Your task to perform on an android device: change keyboard looks Image 0: 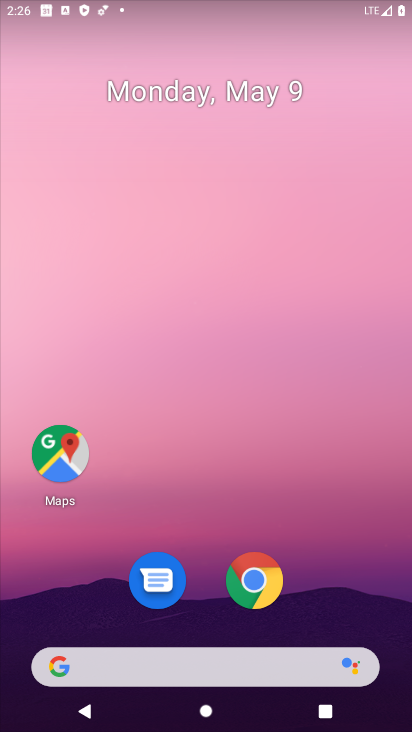
Step 0: click (261, 595)
Your task to perform on an android device: change keyboard looks Image 1: 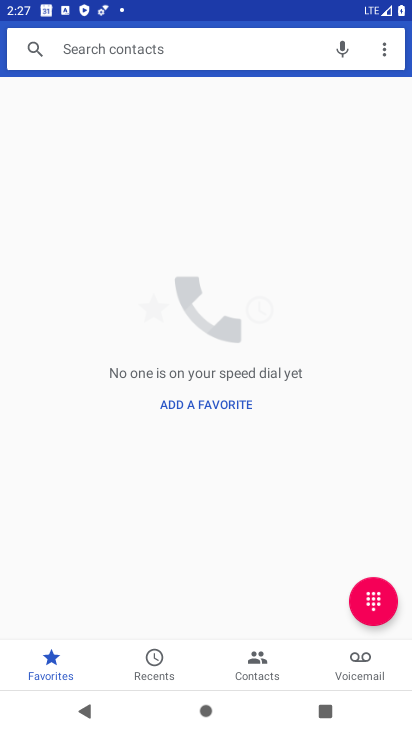
Step 1: press home button
Your task to perform on an android device: change keyboard looks Image 2: 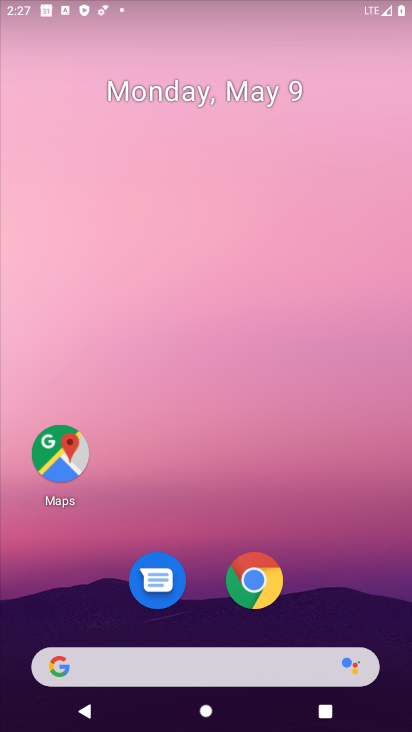
Step 2: drag from (343, 543) to (263, 53)
Your task to perform on an android device: change keyboard looks Image 3: 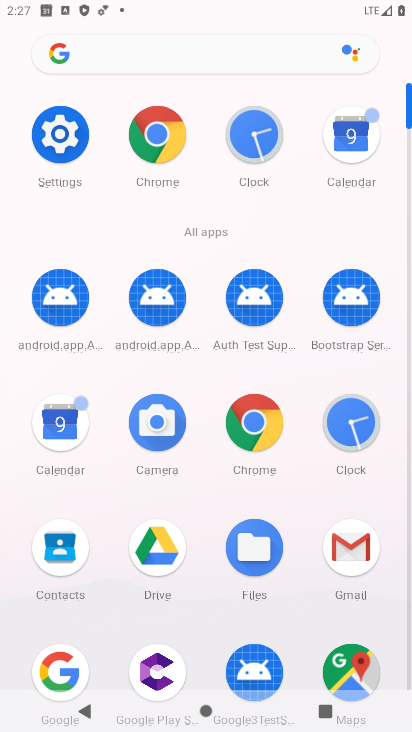
Step 3: drag from (209, 610) to (220, 200)
Your task to perform on an android device: change keyboard looks Image 4: 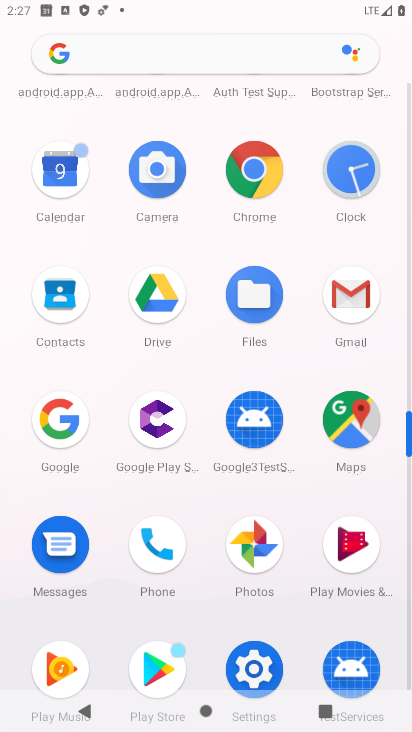
Step 4: click (253, 662)
Your task to perform on an android device: change keyboard looks Image 5: 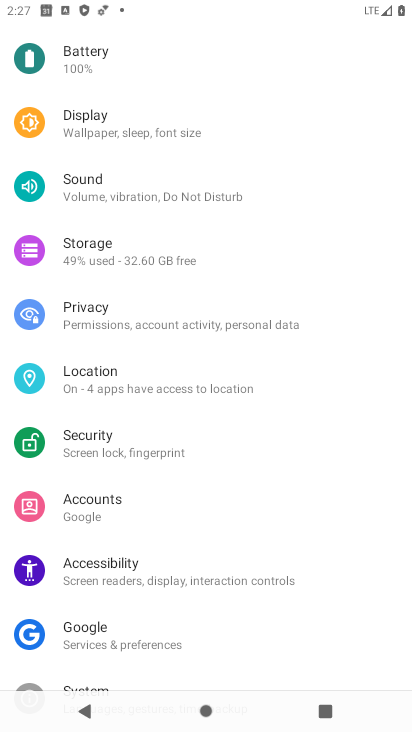
Step 5: drag from (181, 629) to (188, 368)
Your task to perform on an android device: change keyboard looks Image 6: 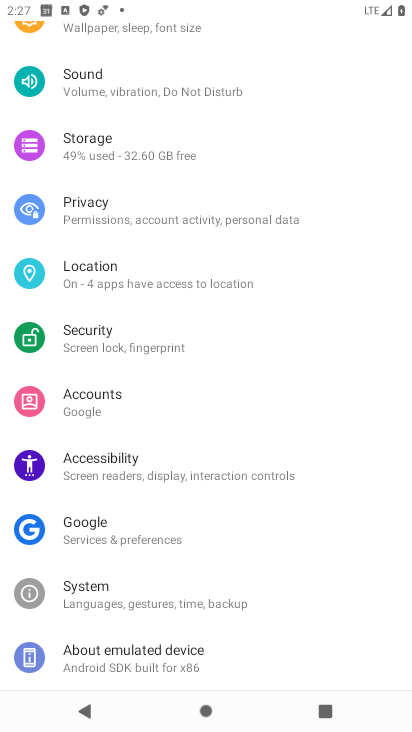
Step 6: click (155, 590)
Your task to perform on an android device: change keyboard looks Image 7: 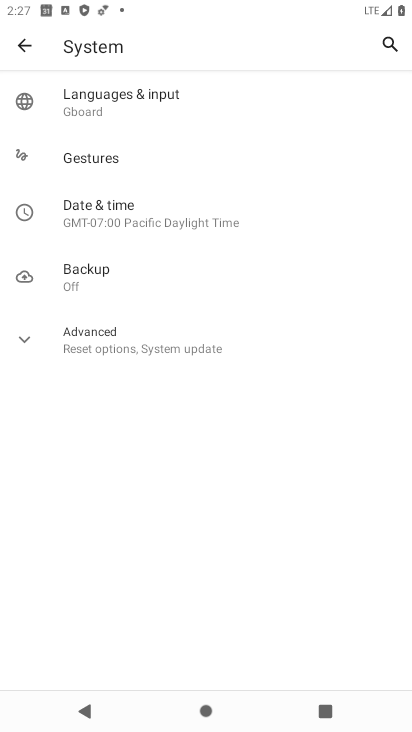
Step 7: click (168, 118)
Your task to perform on an android device: change keyboard looks Image 8: 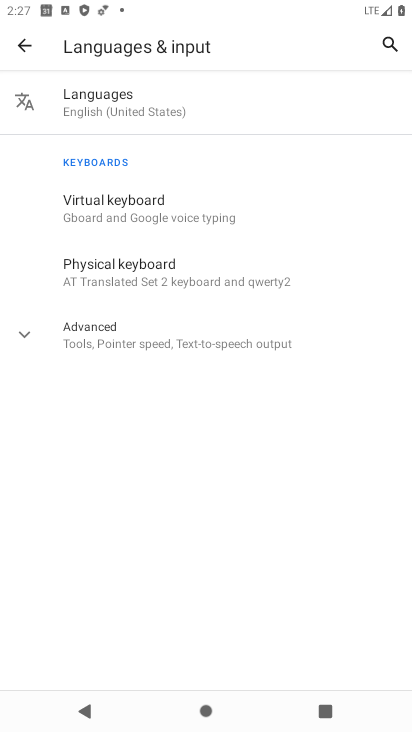
Step 8: click (130, 193)
Your task to perform on an android device: change keyboard looks Image 9: 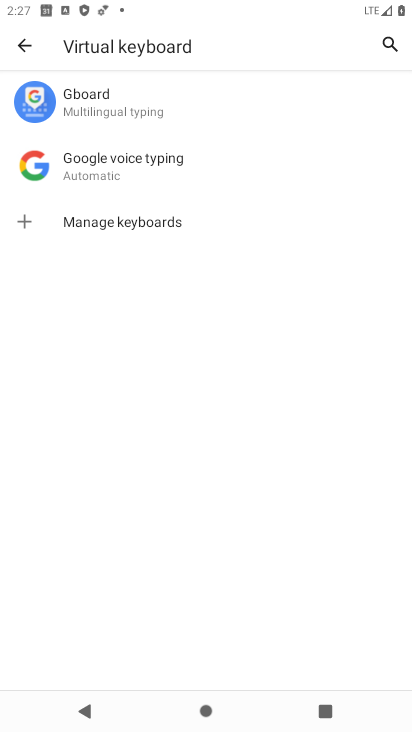
Step 9: click (145, 107)
Your task to perform on an android device: change keyboard looks Image 10: 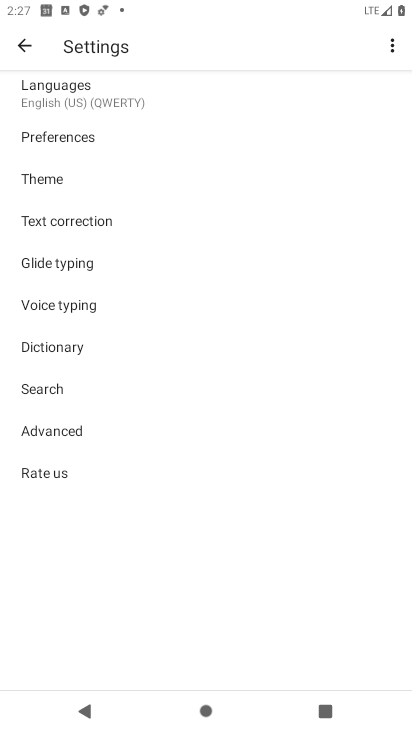
Step 10: click (94, 176)
Your task to perform on an android device: change keyboard looks Image 11: 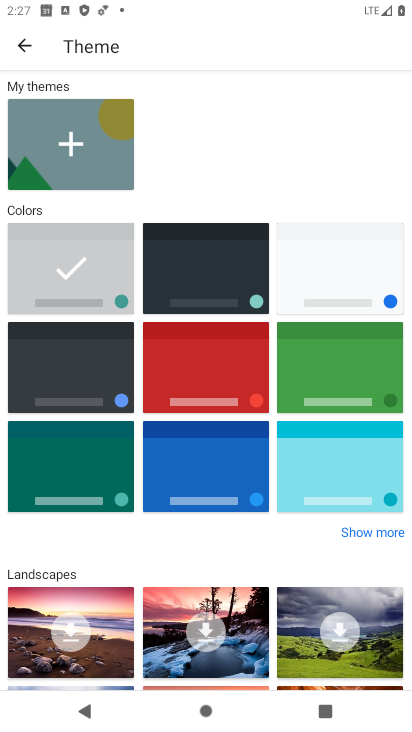
Step 11: click (203, 393)
Your task to perform on an android device: change keyboard looks Image 12: 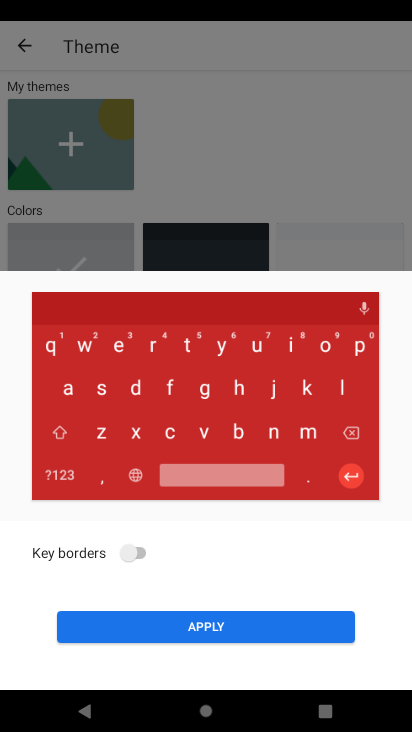
Step 12: click (278, 615)
Your task to perform on an android device: change keyboard looks Image 13: 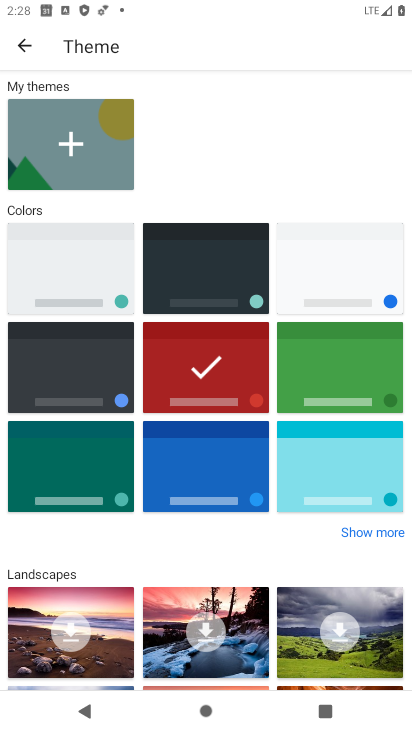
Step 13: task complete